Your task to perform on an android device: delete the emails in spam in the gmail app Image 0: 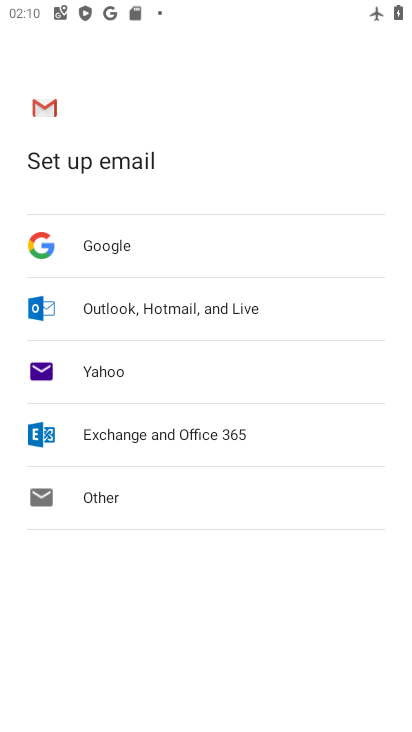
Step 0: press home button
Your task to perform on an android device: delete the emails in spam in the gmail app Image 1: 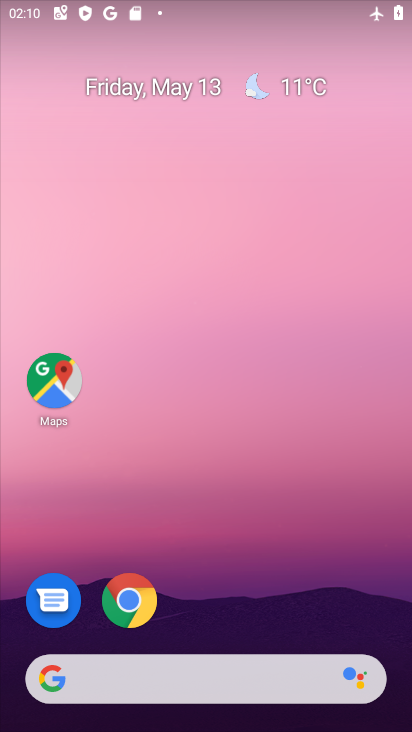
Step 1: drag from (190, 627) to (237, 323)
Your task to perform on an android device: delete the emails in spam in the gmail app Image 2: 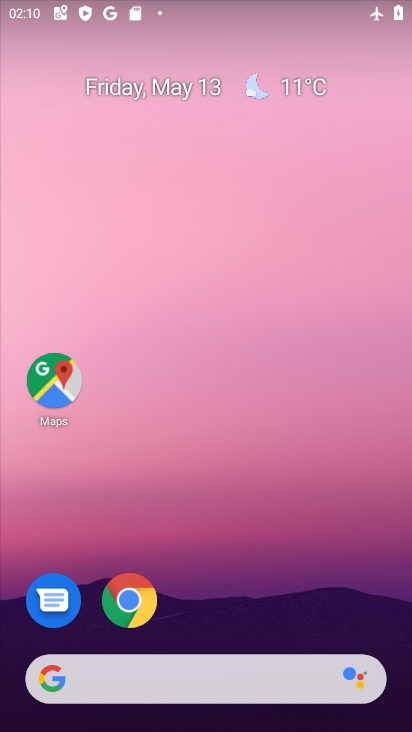
Step 2: drag from (214, 523) to (252, 207)
Your task to perform on an android device: delete the emails in spam in the gmail app Image 3: 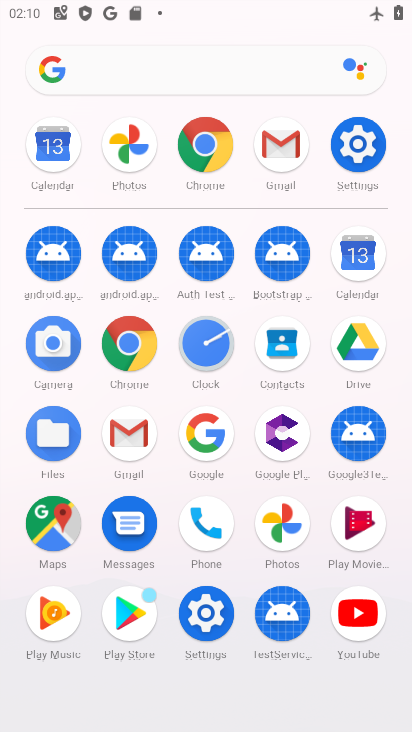
Step 3: click (108, 442)
Your task to perform on an android device: delete the emails in spam in the gmail app Image 4: 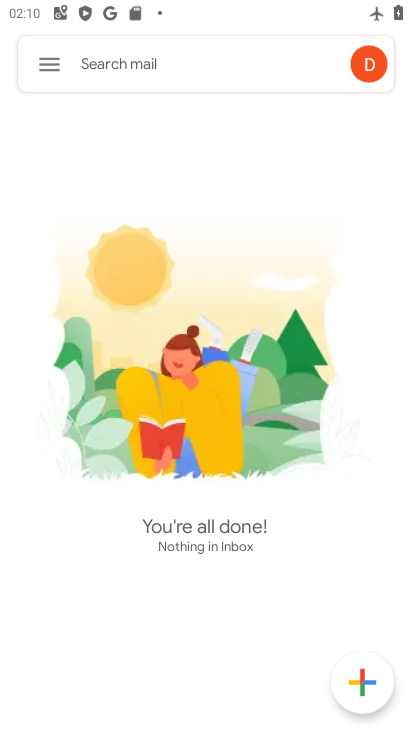
Step 4: click (51, 70)
Your task to perform on an android device: delete the emails in spam in the gmail app Image 5: 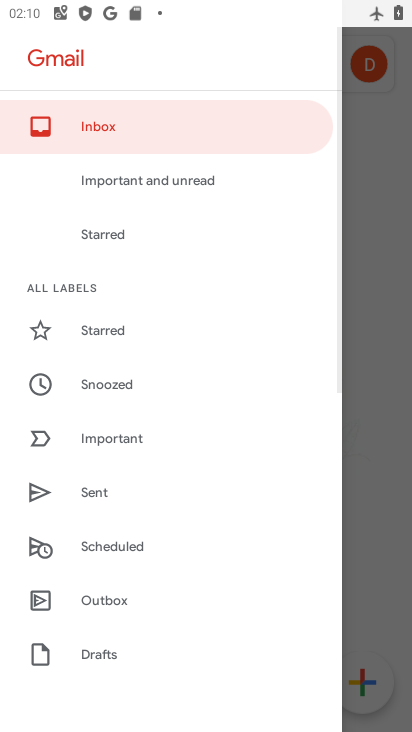
Step 5: drag from (144, 606) to (168, 255)
Your task to perform on an android device: delete the emails in spam in the gmail app Image 6: 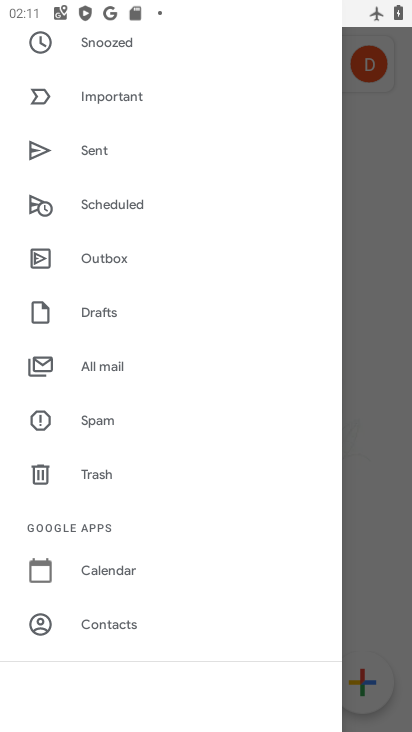
Step 6: drag from (200, 567) to (241, 202)
Your task to perform on an android device: delete the emails in spam in the gmail app Image 7: 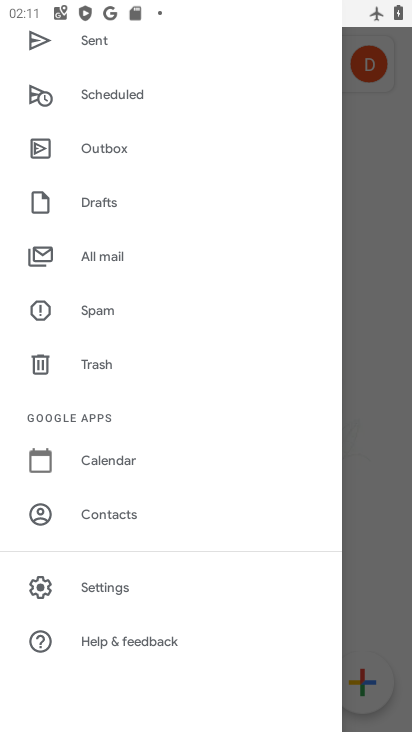
Step 7: drag from (177, 156) to (215, 717)
Your task to perform on an android device: delete the emails in spam in the gmail app Image 8: 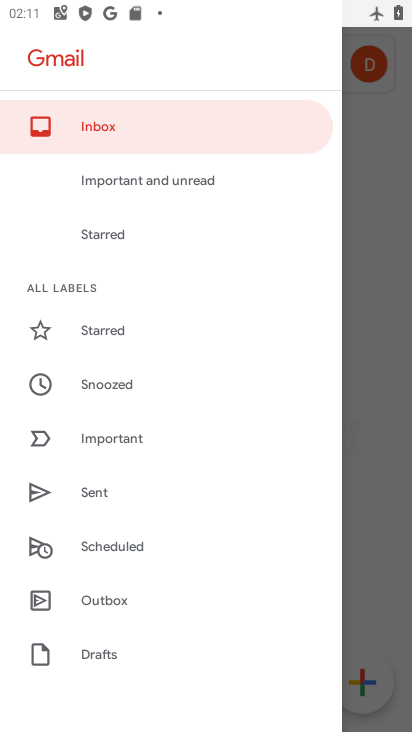
Step 8: drag from (122, 619) to (200, 121)
Your task to perform on an android device: delete the emails in spam in the gmail app Image 9: 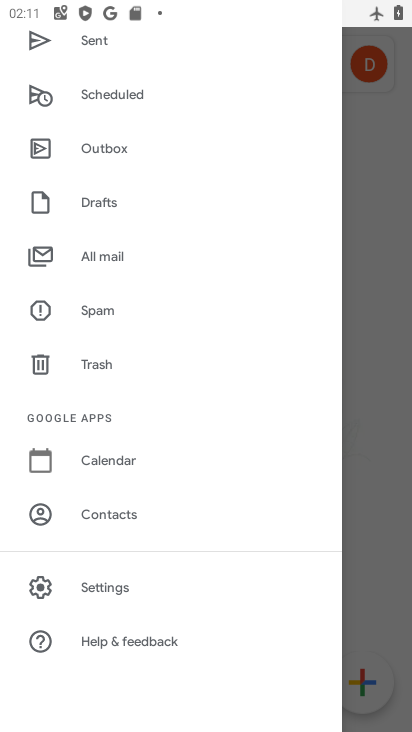
Step 9: click (134, 310)
Your task to perform on an android device: delete the emails in spam in the gmail app Image 10: 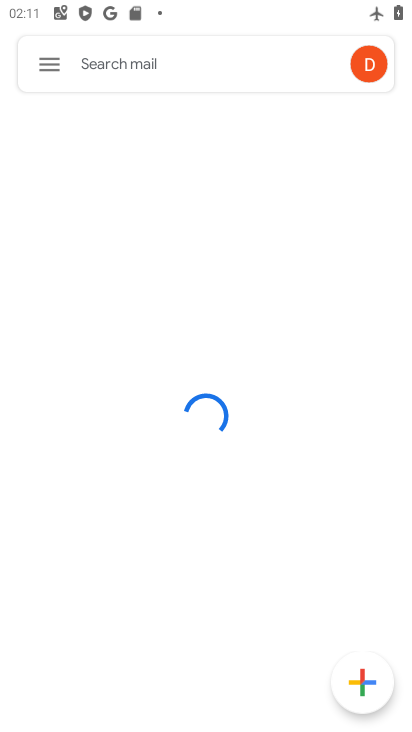
Step 10: task complete